Your task to perform on an android device: Go to accessibility settings Image 0: 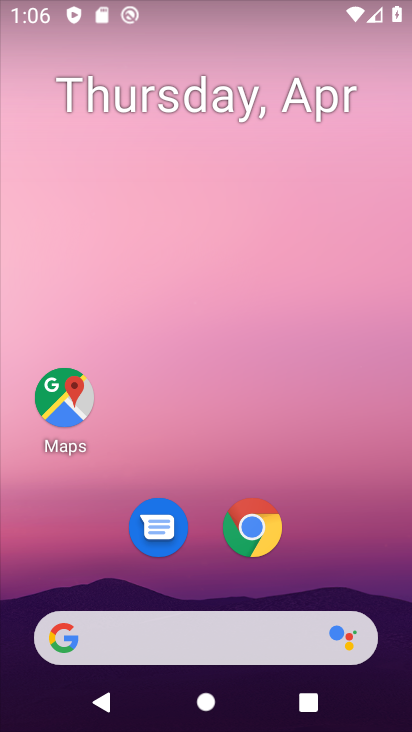
Step 0: drag from (398, 602) to (290, 189)
Your task to perform on an android device: Go to accessibility settings Image 1: 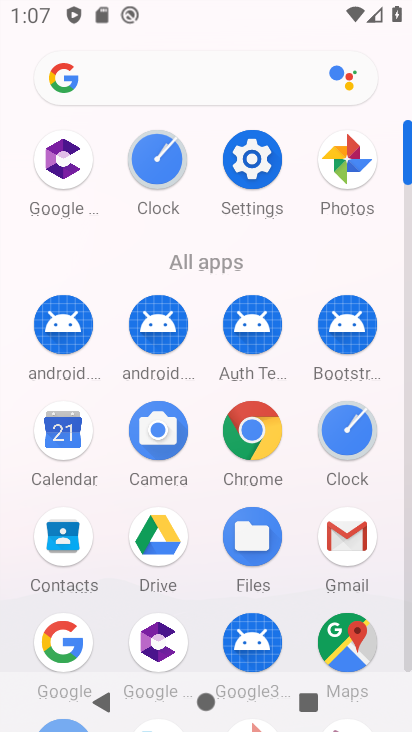
Step 1: click (408, 630)
Your task to perform on an android device: Go to accessibility settings Image 2: 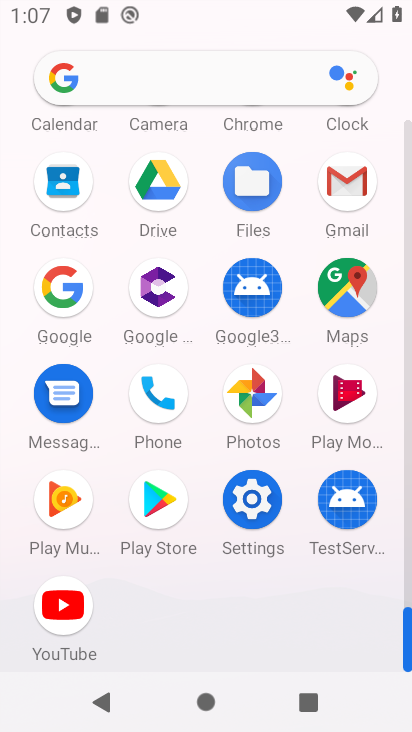
Step 2: click (247, 501)
Your task to perform on an android device: Go to accessibility settings Image 3: 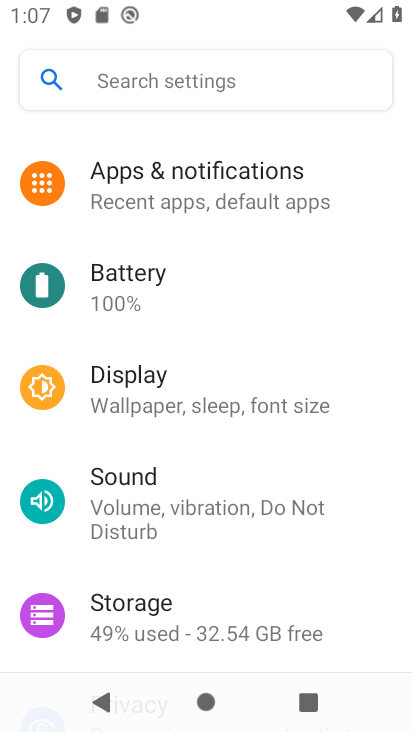
Step 3: drag from (240, 563) to (241, 285)
Your task to perform on an android device: Go to accessibility settings Image 4: 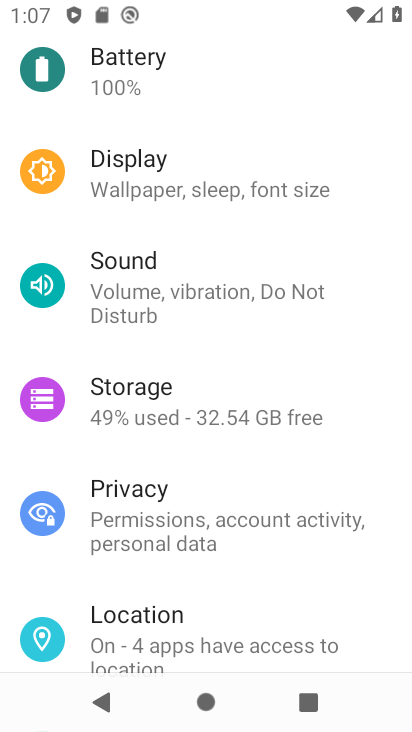
Step 4: drag from (259, 539) to (286, 301)
Your task to perform on an android device: Go to accessibility settings Image 5: 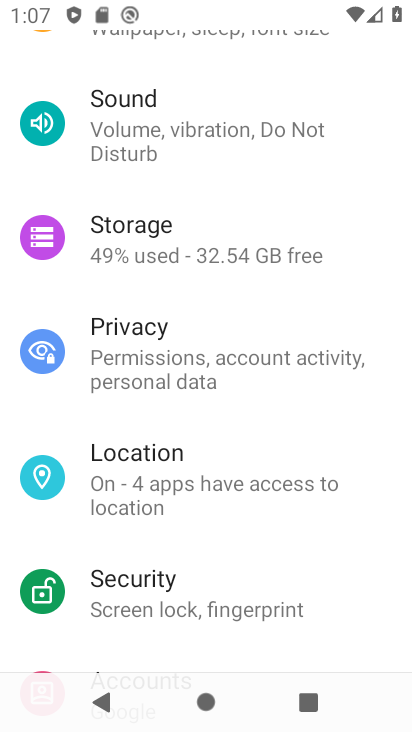
Step 5: drag from (309, 552) to (346, 250)
Your task to perform on an android device: Go to accessibility settings Image 6: 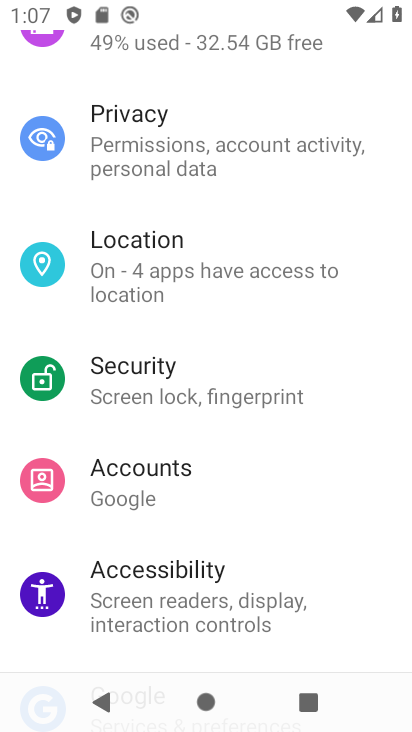
Step 6: click (133, 582)
Your task to perform on an android device: Go to accessibility settings Image 7: 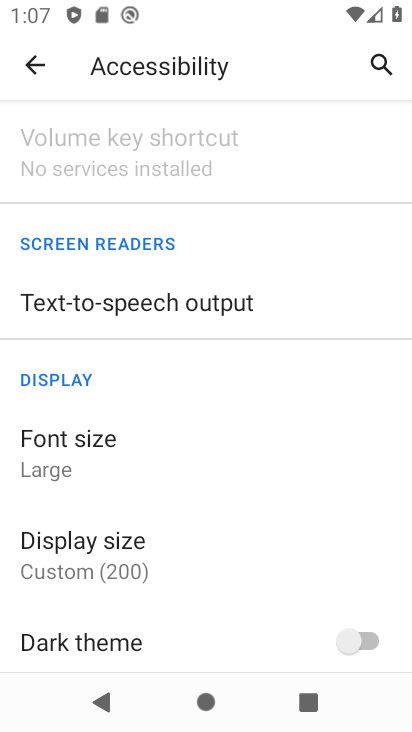
Step 7: task complete